Your task to perform on an android device: See recent photos Image 0: 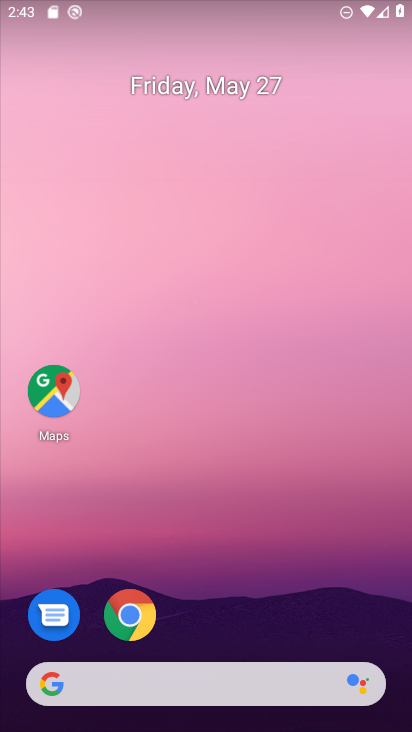
Step 0: drag from (278, 520) to (144, 18)
Your task to perform on an android device: See recent photos Image 1: 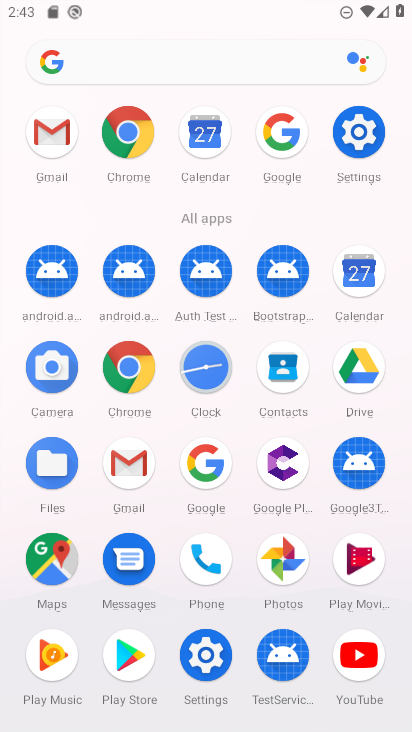
Step 1: click (279, 561)
Your task to perform on an android device: See recent photos Image 2: 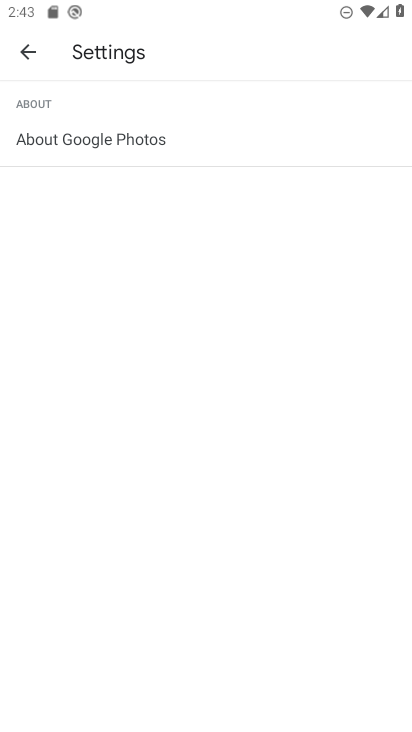
Step 2: click (31, 50)
Your task to perform on an android device: See recent photos Image 3: 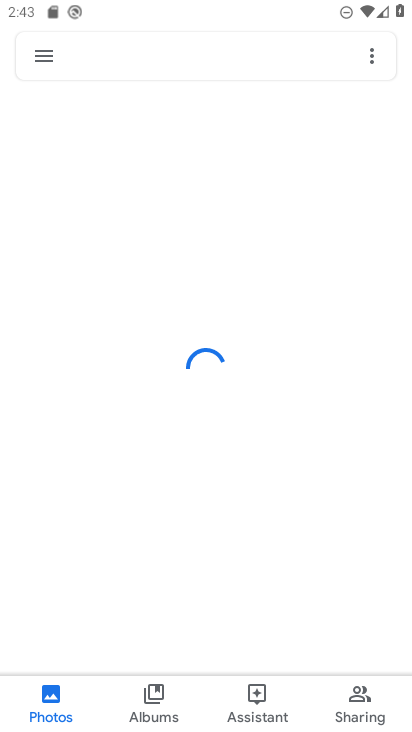
Step 3: click (156, 69)
Your task to perform on an android device: See recent photos Image 4: 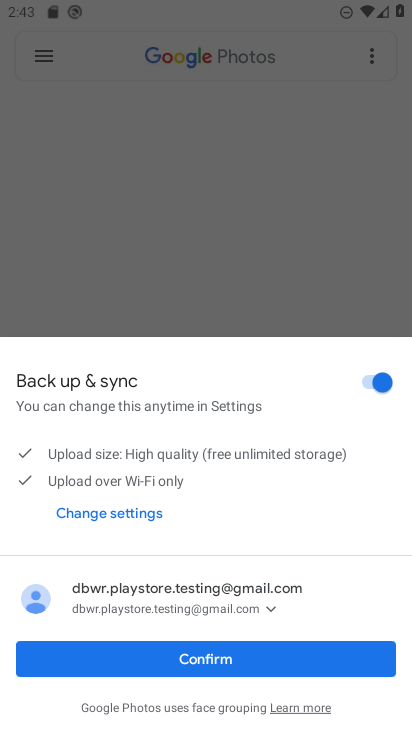
Step 4: click (295, 661)
Your task to perform on an android device: See recent photos Image 5: 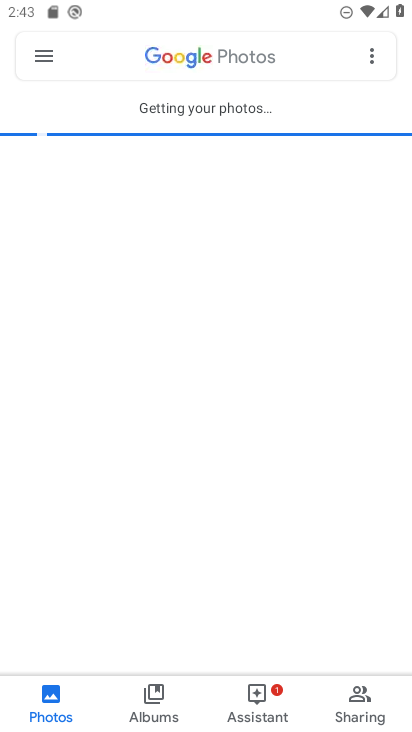
Step 5: click (198, 58)
Your task to perform on an android device: See recent photos Image 6: 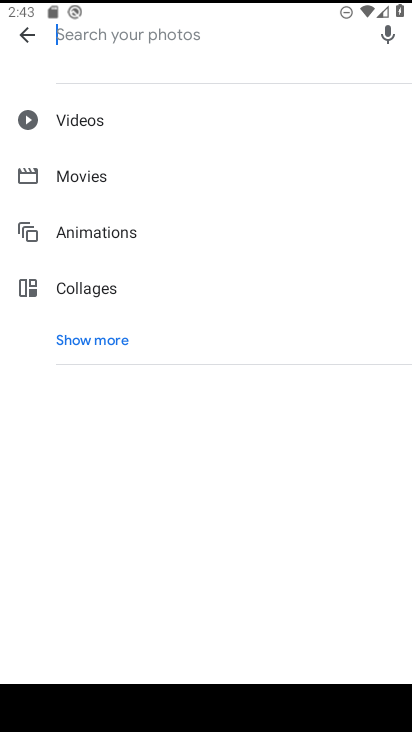
Step 6: type "recent"
Your task to perform on an android device: See recent photos Image 7: 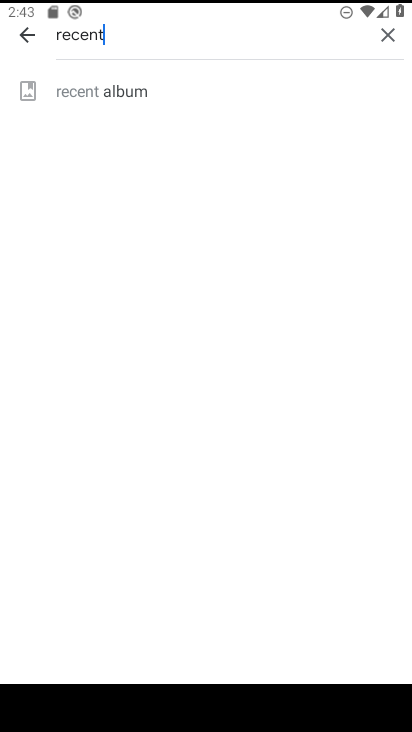
Step 7: click (105, 91)
Your task to perform on an android device: See recent photos Image 8: 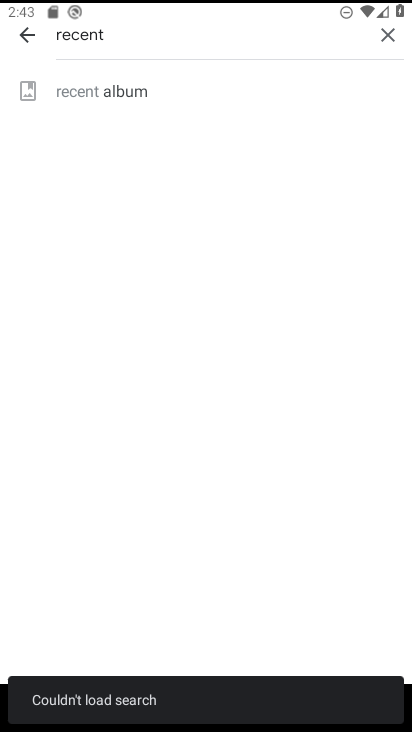
Step 8: click (123, 89)
Your task to perform on an android device: See recent photos Image 9: 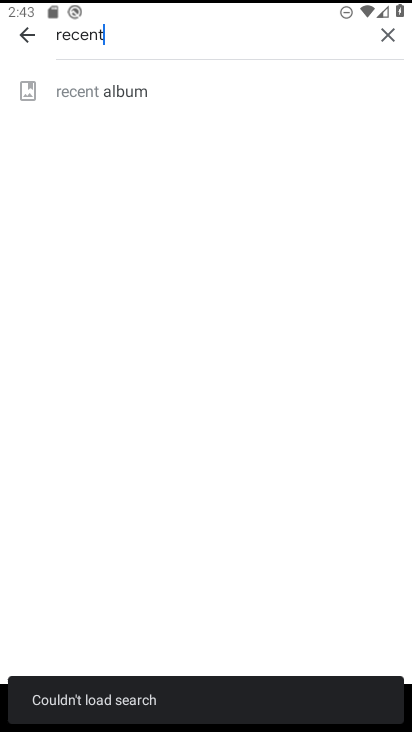
Step 9: task complete